Your task to perform on an android device: toggle translation in the chrome app Image 0: 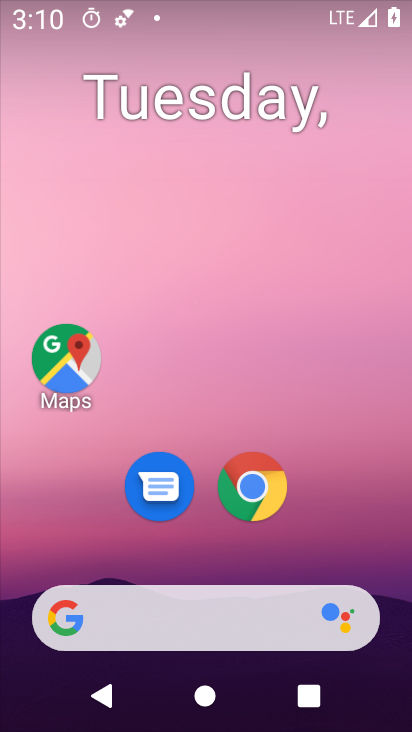
Step 0: press home button
Your task to perform on an android device: toggle translation in the chrome app Image 1: 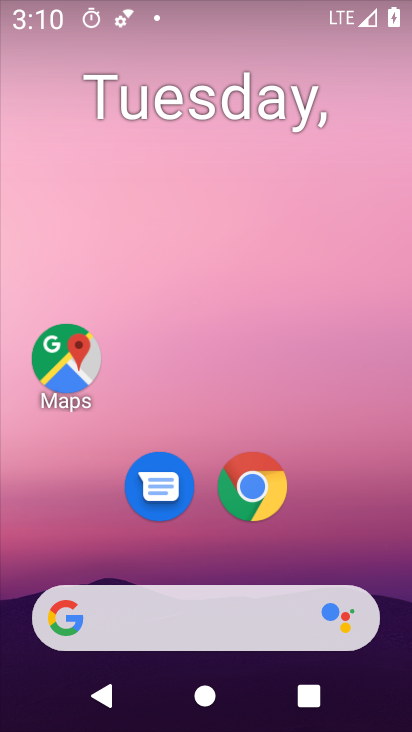
Step 1: drag from (339, 540) to (342, 61)
Your task to perform on an android device: toggle translation in the chrome app Image 2: 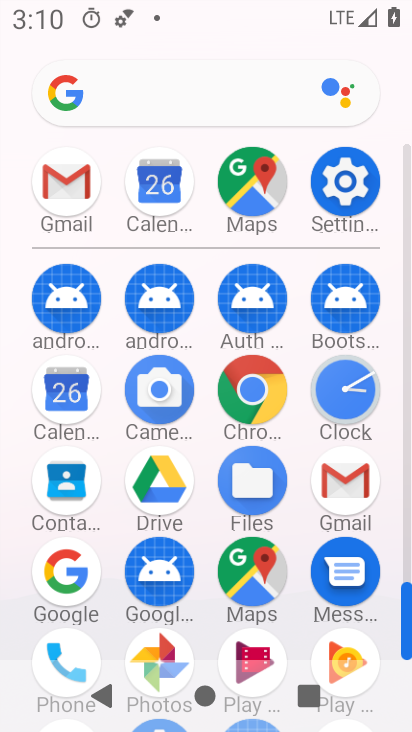
Step 2: click (259, 387)
Your task to perform on an android device: toggle translation in the chrome app Image 3: 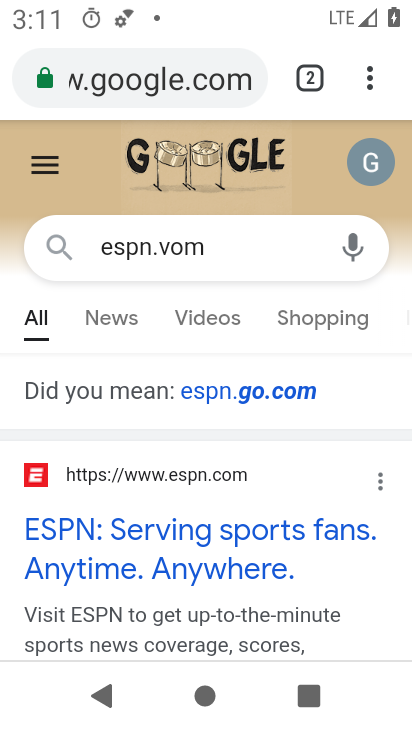
Step 3: click (368, 85)
Your task to perform on an android device: toggle translation in the chrome app Image 4: 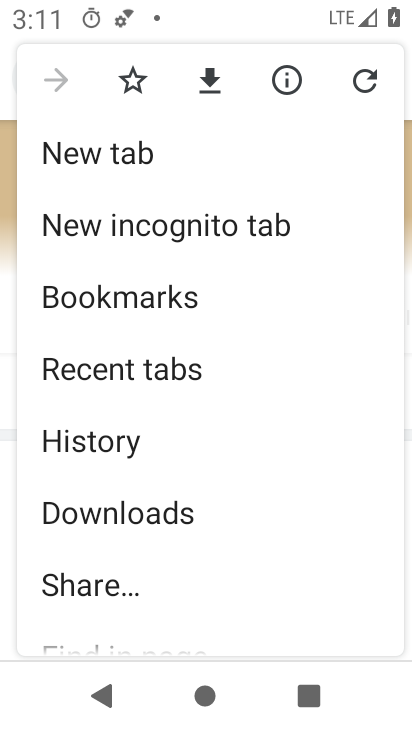
Step 4: drag from (311, 419) to (310, 287)
Your task to perform on an android device: toggle translation in the chrome app Image 5: 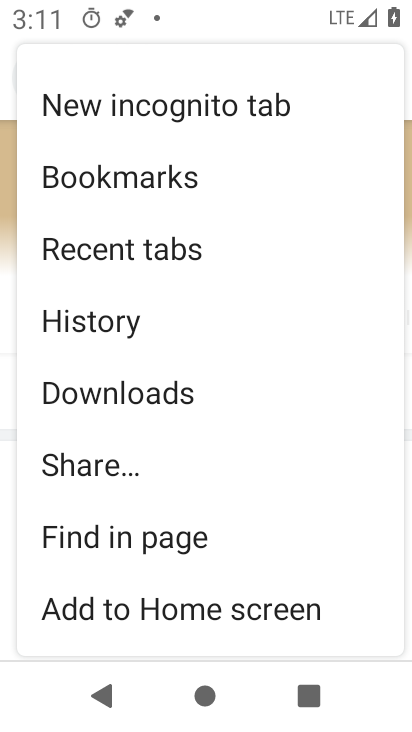
Step 5: drag from (338, 486) to (335, 387)
Your task to perform on an android device: toggle translation in the chrome app Image 6: 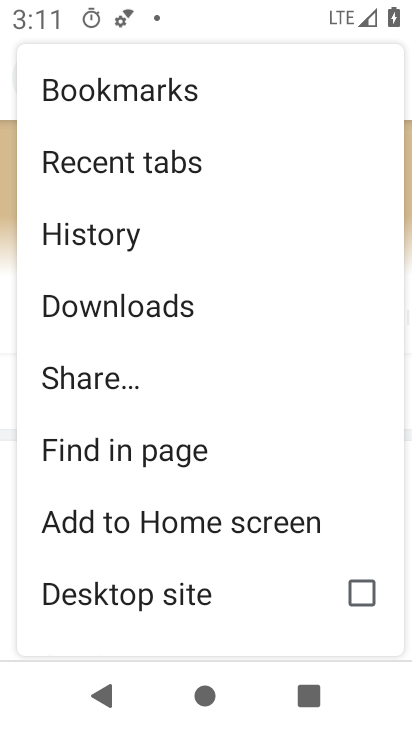
Step 6: drag from (326, 503) to (323, 401)
Your task to perform on an android device: toggle translation in the chrome app Image 7: 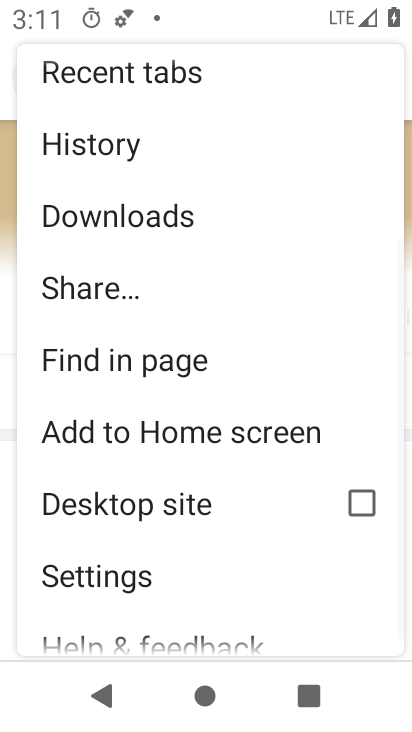
Step 7: drag from (249, 578) to (253, 469)
Your task to perform on an android device: toggle translation in the chrome app Image 8: 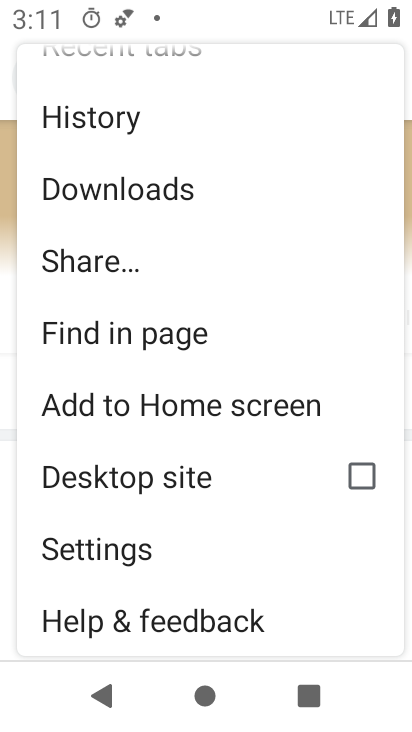
Step 8: click (148, 555)
Your task to perform on an android device: toggle translation in the chrome app Image 9: 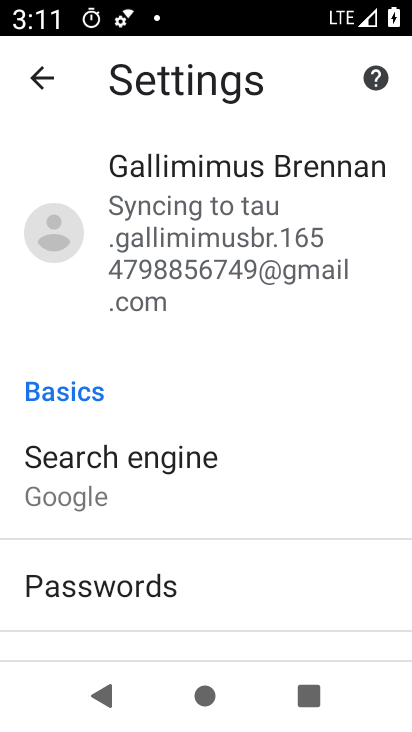
Step 9: drag from (315, 514) to (316, 443)
Your task to perform on an android device: toggle translation in the chrome app Image 10: 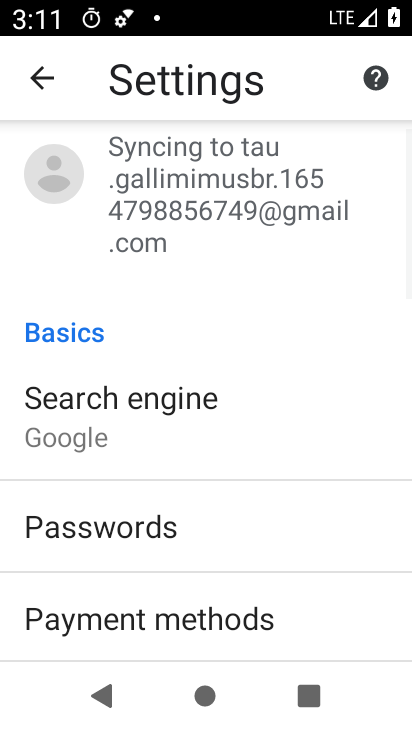
Step 10: drag from (318, 525) to (314, 435)
Your task to perform on an android device: toggle translation in the chrome app Image 11: 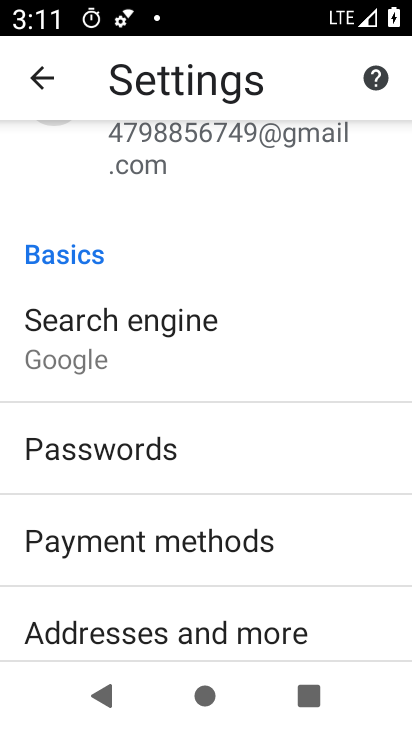
Step 11: drag from (331, 547) to (333, 475)
Your task to perform on an android device: toggle translation in the chrome app Image 12: 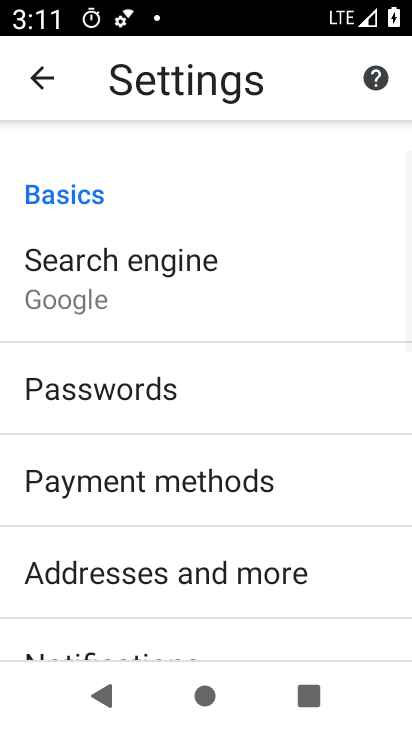
Step 12: drag from (348, 563) to (344, 490)
Your task to perform on an android device: toggle translation in the chrome app Image 13: 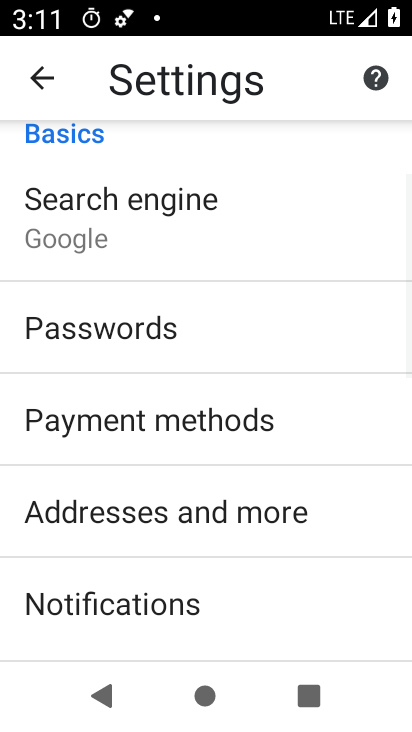
Step 13: drag from (344, 560) to (342, 485)
Your task to perform on an android device: toggle translation in the chrome app Image 14: 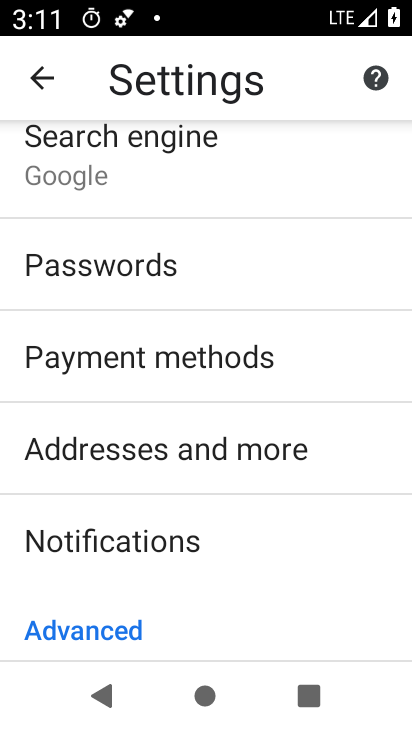
Step 14: drag from (336, 568) to (336, 482)
Your task to perform on an android device: toggle translation in the chrome app Image 15: 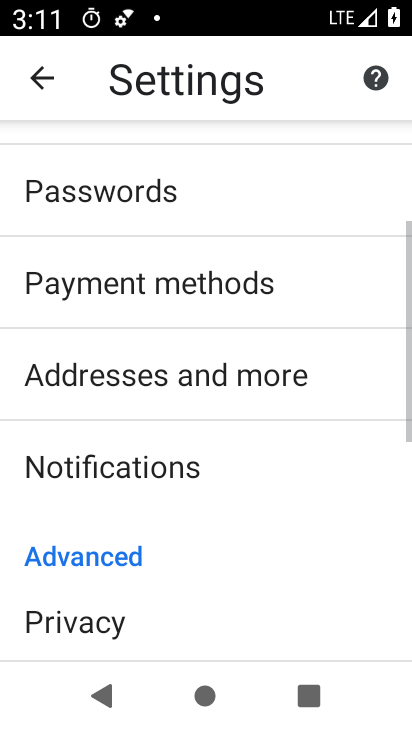
Step 15: drag from (324, 572) to (324, 465)
Your task to perform on an android device: toggle translation in the chrome app Image 16: 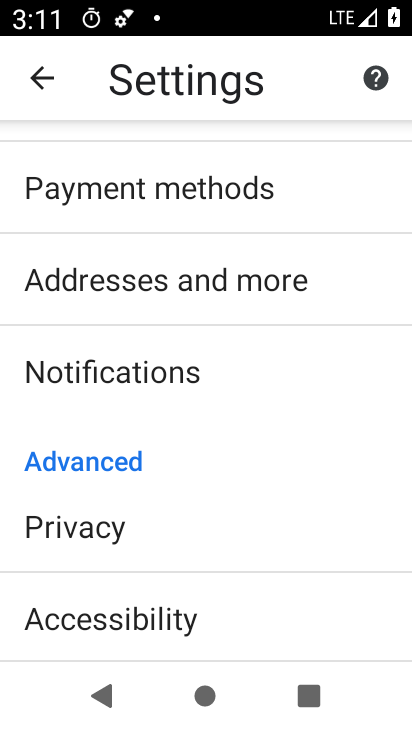
Step 16: drag from (303, 576) to (301, 479)
Your task to perform on an android device: toggle translation in the chrome app Image 17: 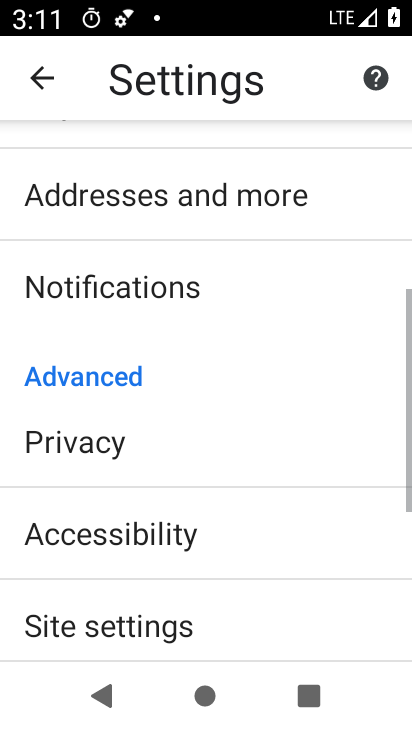
Step 17: drag from (300, 572) to (306, 468)
Your task to perform on an android device: toggle translation in the chrome app Image 18: 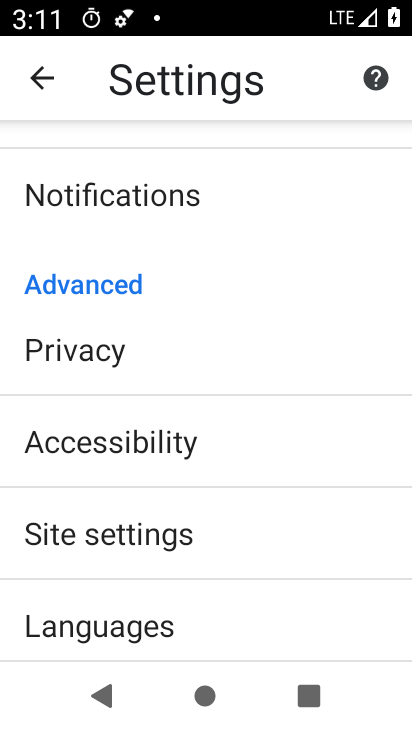
Step 18: drag from (308, 566) to (305, 454)
Your task to perform on an android device: toggle translation in the chrome app Image 19: 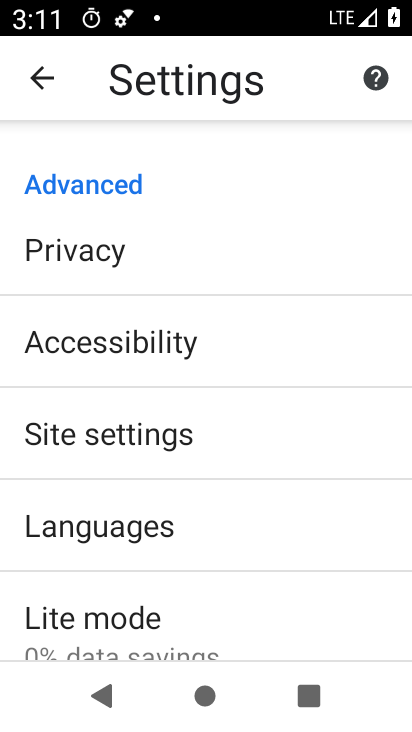
Step 19: drag from (294, 553) to (292, 480)
Your task to perform on an android device: toggle translation in the chrome app Image 20: 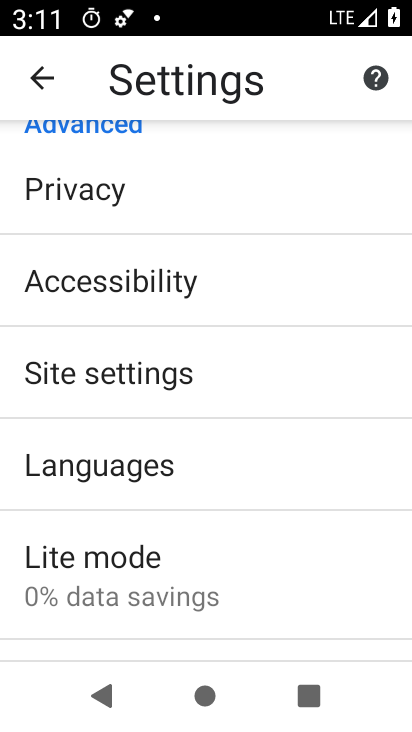
Step 20: click (286, 491)
Your task to perform on an android device: toggle translation in the chrome app Image 21: 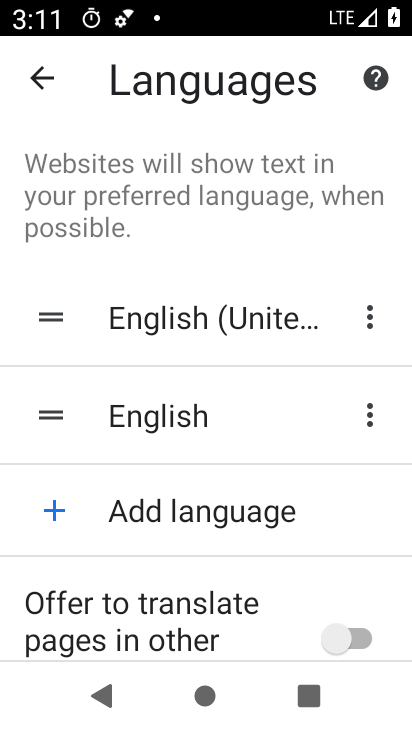
Step 21: drag from (274, 590) to (272, 510)
Your task to perform on an android device: toggle translation in the chrome app Image 22: 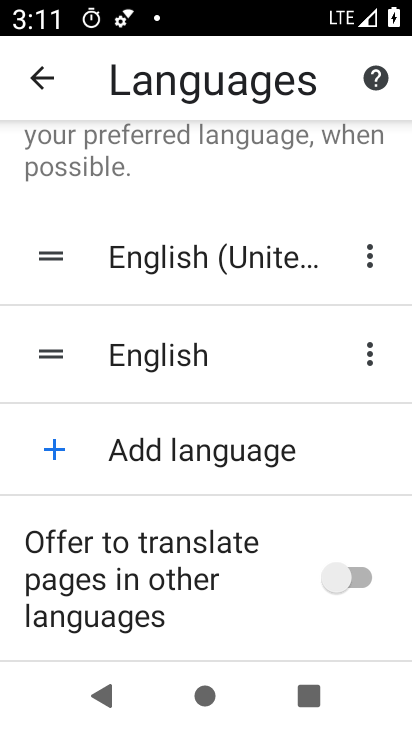
Step 22: click (331, 578)
Your task to perform on an android device: toggle translation in the chrome app Image 23: 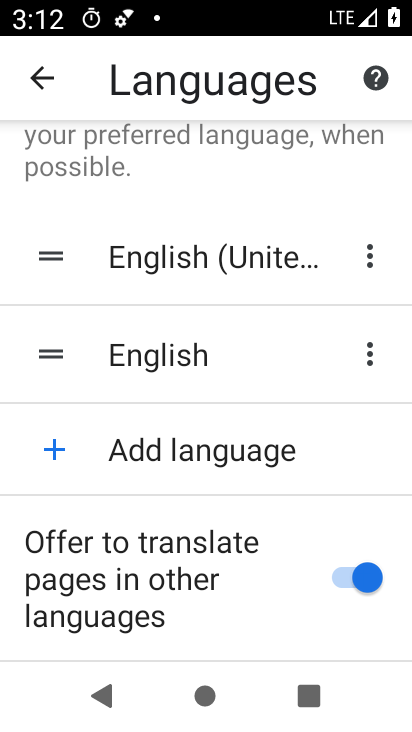
Step 23: task complete